Your task to perform on an android device: install app "Truecaller" Image 0: 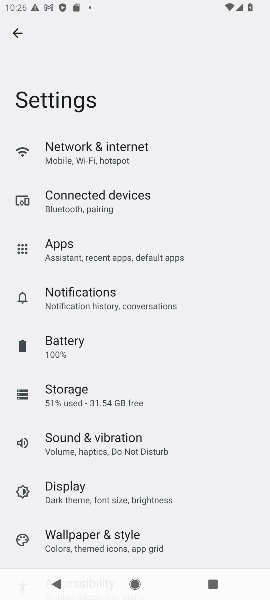
Step 0: press home button
Your task to perform on an android device: install app "Truecaller" Image 1: 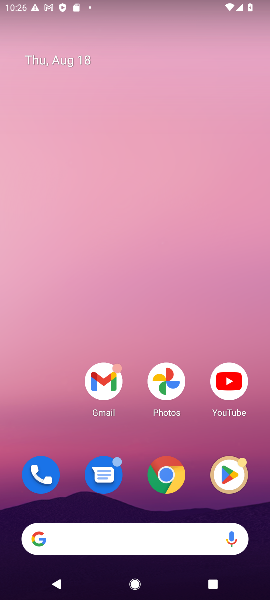
Step 1: drag from (152, 518) to (158, 80)
Your task to perform on an android device: install app "Truecaller" Image 2: 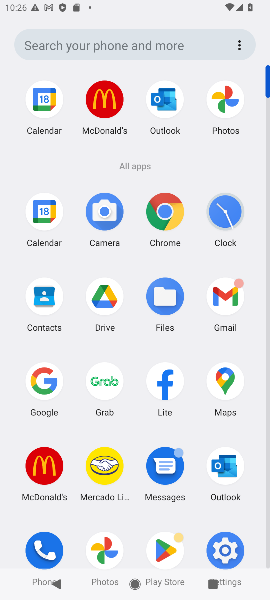
Step 2: click (162, 548)
Your task to perform on an android device: install app "Truecaller" Image 3: 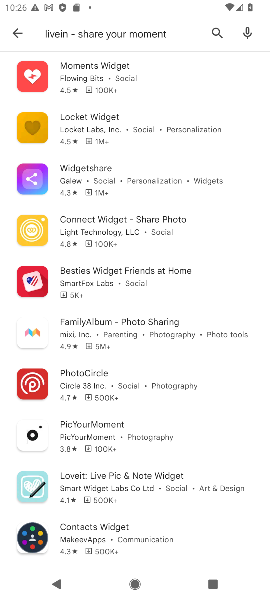
Step 3: click (4, 34)
Your task to perform on an android device: install app "Truecaller" Image 4: 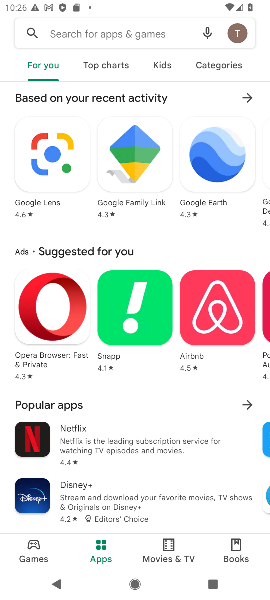
Step 4: click (100, 31)
Your task to perform on an android device: install app "Truecaller" Image 5: 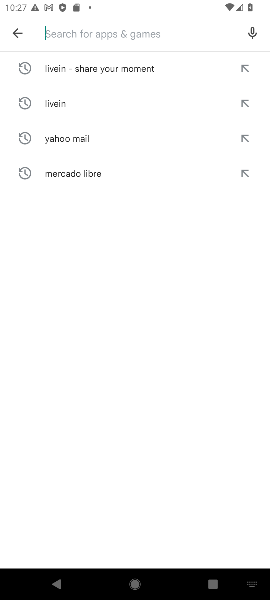
Step 5: type "Truecaller"
Your task to perform on an android device: install app "Truecaller" Image 6: 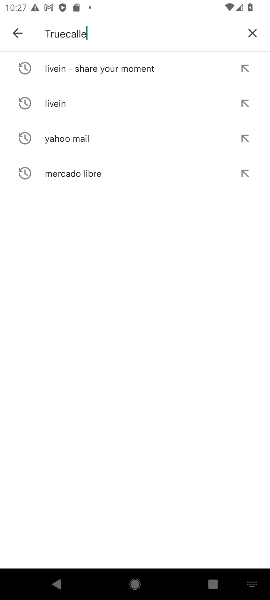
Step 6: type ""
Your task to perform on an android device: install app "Truecaller" Image 7: 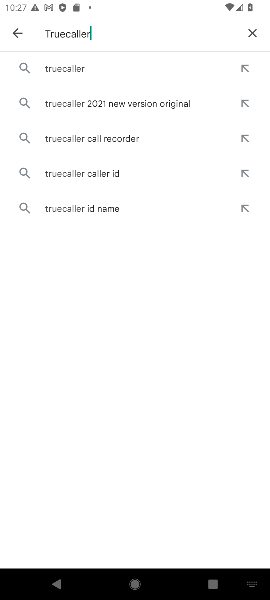
Step 7: click (68, 66)
Your task to perform on an android device: install app "Truecaller" Image 8: 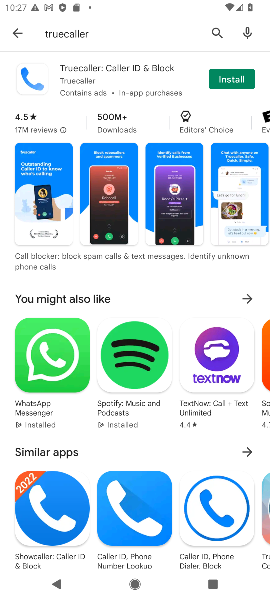
Step 8: click (228, 77)
Your task to perform on an android device: install app "Truecaller" Image 9: 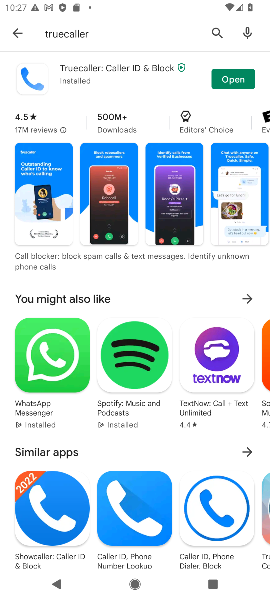
Step 9: click (226, 84)
Your task to perform on an android device: install app "Truecaller" Image 10: 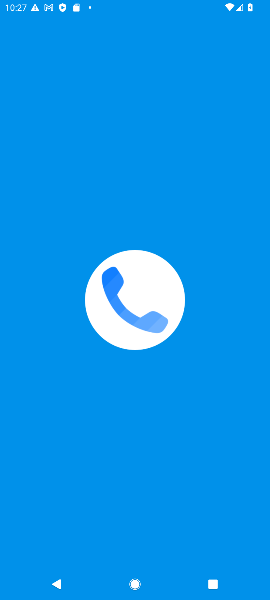
Step 10: task complete